Your task to perform on an android device: check the backup settings in the google photos Image 0: 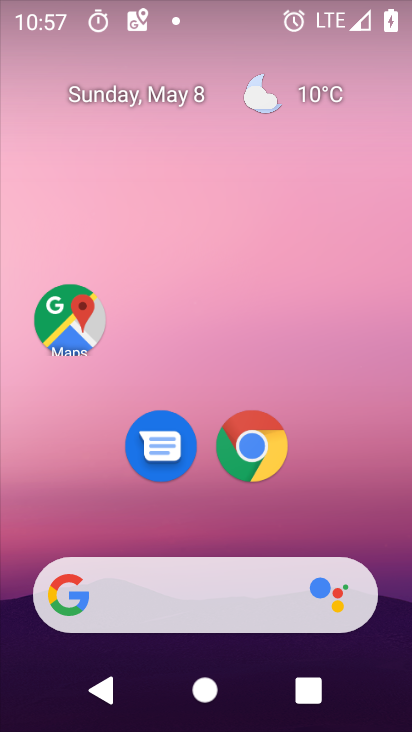
Step 0: drag from (376, 541) to (367, 12)
Your task to perform on an android device: check the backup settings in the google photos Image 1: 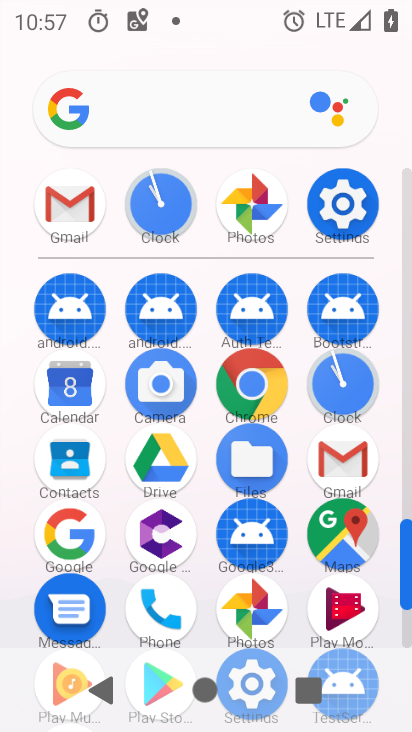
Step 1: click (250, 207)
Your task to perform on an android device: check the backup settings in the google photos Image 2: 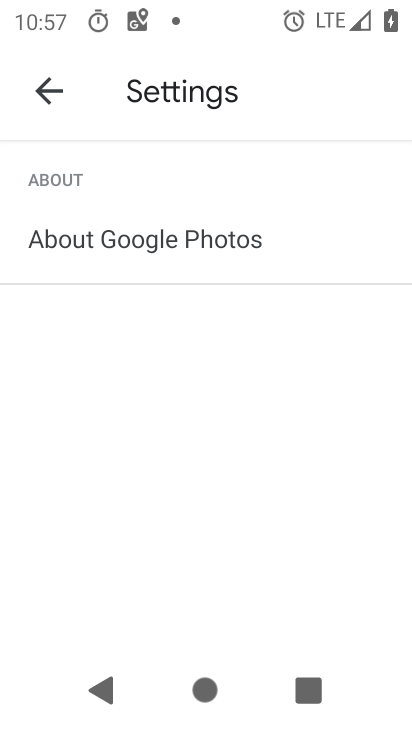
Step 2: click (37, 92)
Your task to perform on an android device: check the backup settings in the google photos Image 3: 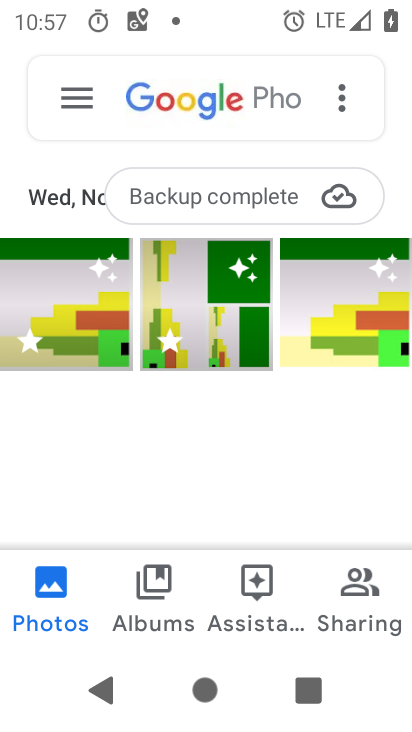
Step 3: click (65, 101)
Your task to perform on an android device: check the backup settings in the google photos Image 4: 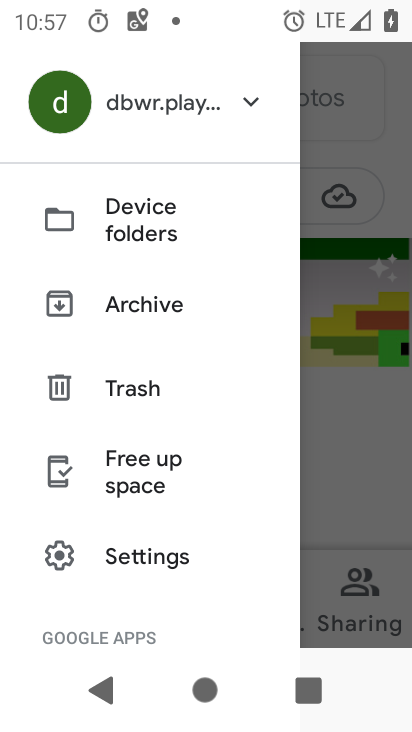
Step 4: click (128, 554)
Your task to perform on an android device: check the backup settings in the google photos Image 5: 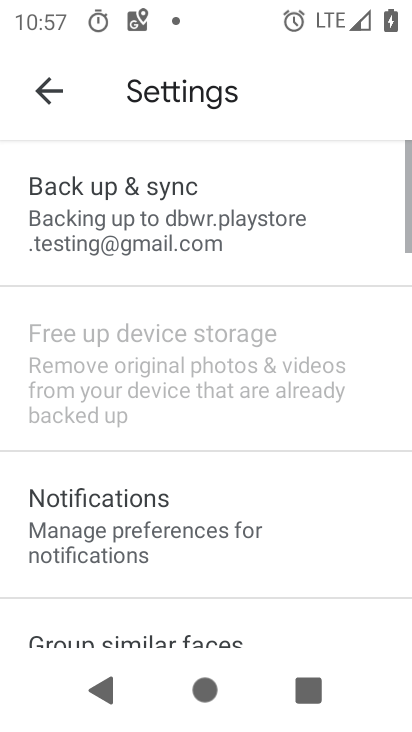
Step 5: click (119, 228)
Your task to perform on an android device: check the backup settings in the google photos Image 6: 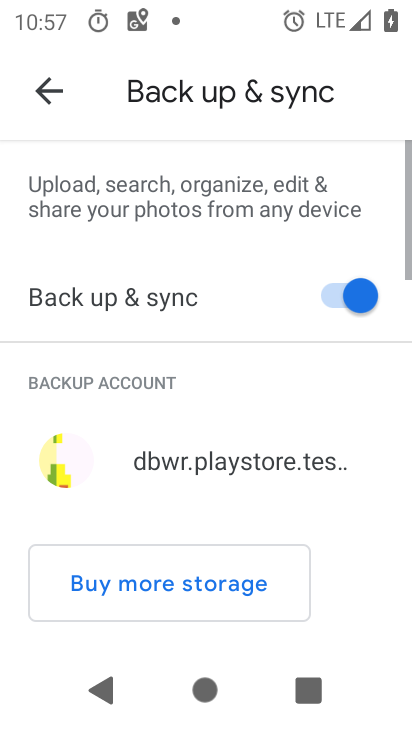
Step 6: task complete